Your task to perform on an android device: open app "Venmo" (install if not already installed) and go to login screen Image 0: 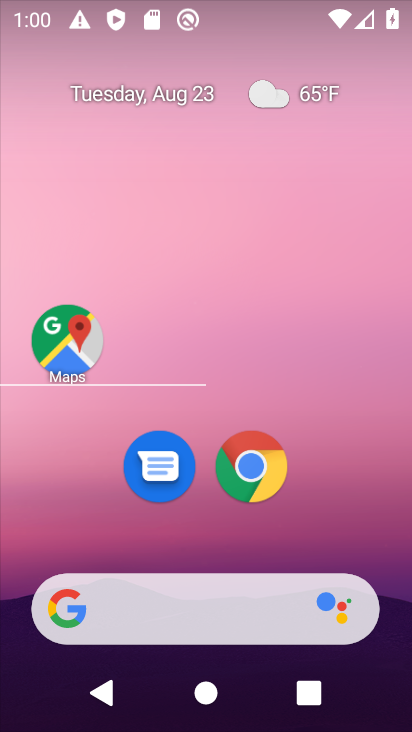
Step 0: click (46, 87)
Your task to perform on an android device: open app "Venmo" (install if not already installed) and go to login screen Image 1: 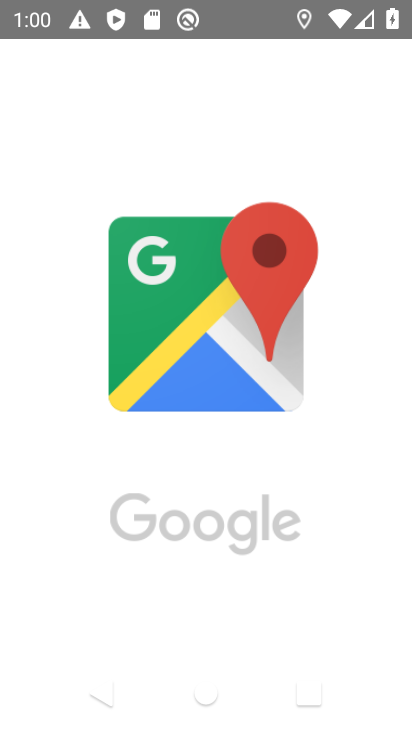
Step 1: click (34, 95)
Your task to perform on an android device: open app "Venmo" (install if not already installed) and go to login screen Image 2: 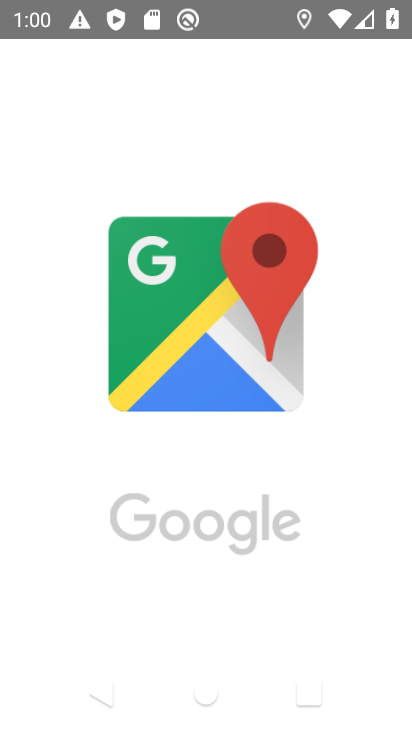
Step 2: press home button
Your task to perform on an android device: open app "Venmo" (install if not already installed) and go to login screen Image 3: 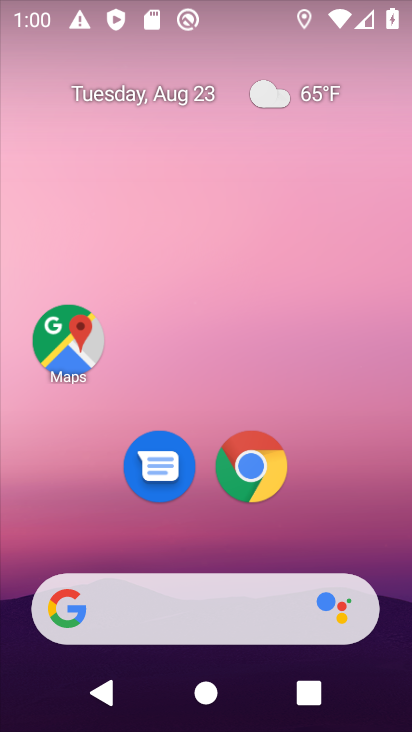
Step 3: drag from (265, 562) to (260, 77)
Your task to perform on an android device: open app "Venmo" (install if not already installed) and go to login screen Image 4: 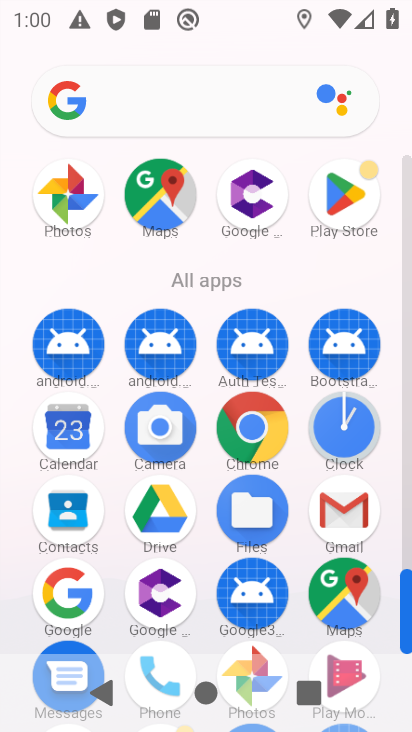
Step 4: click (335, 177)
Your task to perform on an android device: open app "Venmo" (install if not already installed) and go to login screen Image 5: 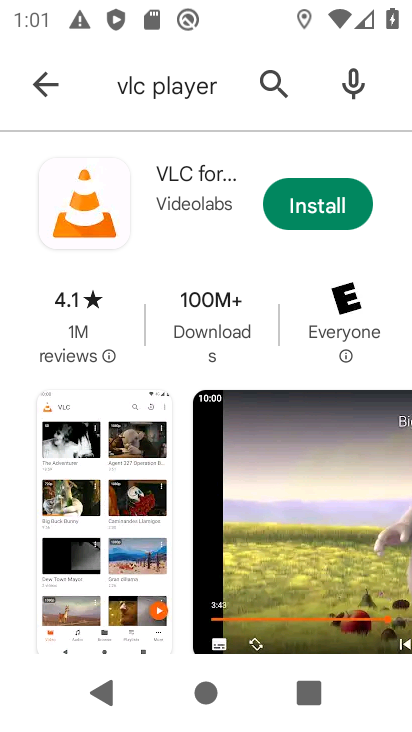
Step 5: click (31, 67)
Your task to perform on an android device: open app "Venmo" (install if not already installed) and go to login screen Image 6: 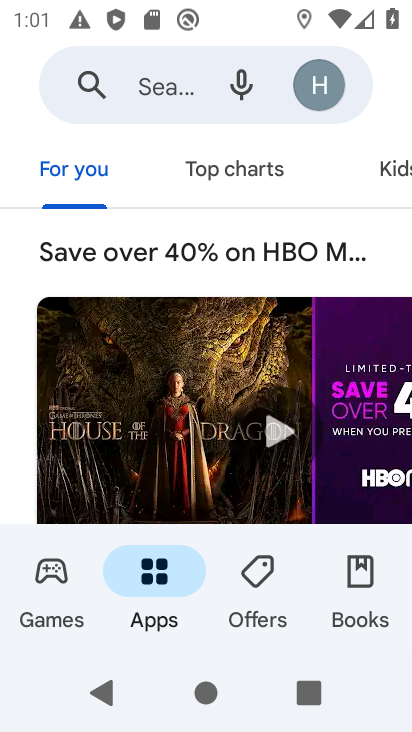
Step 6: click (166, 65)
Your task to perform on an android device: open app "Venmo" (install if not already installed) and go to login screen Image 7: 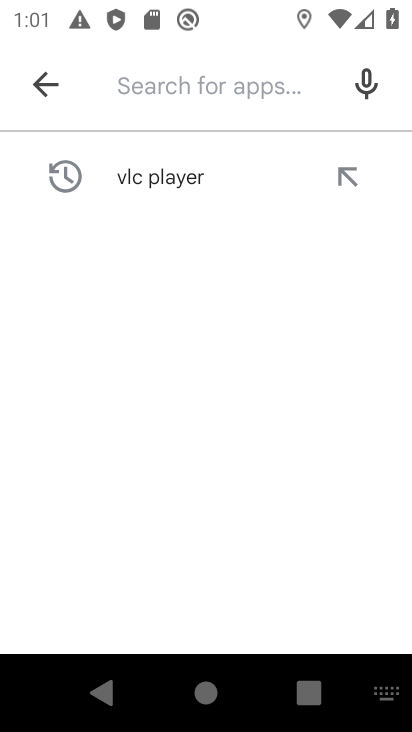
Step 7: click (145, 75)
Your task to perform on an android device: open app "Venmo" (install if not already installed) and go to login screen Image 8: 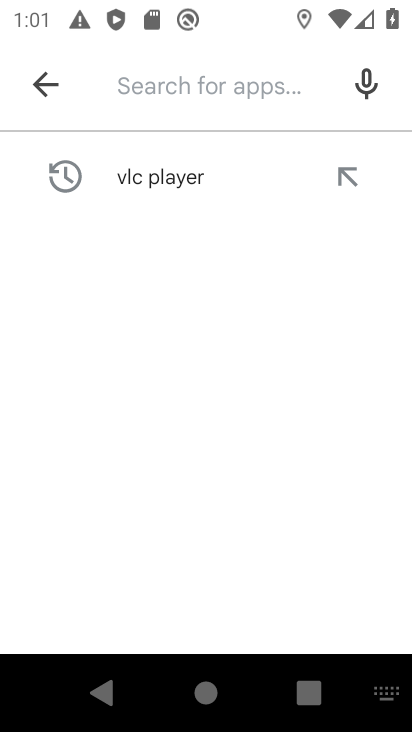
Step 8: type "Venmo "
Your task to perform on an android device: open app "Venmo" (install if not already installed) and go to login screen Image 9: 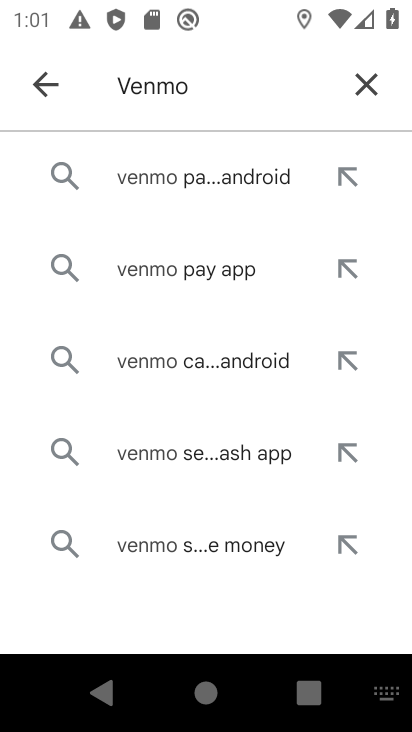
Step 9: click (227, 184)
Your task to perform on an android device: open app "Venmo" (install if not already installed) and go to login screen Image 10: 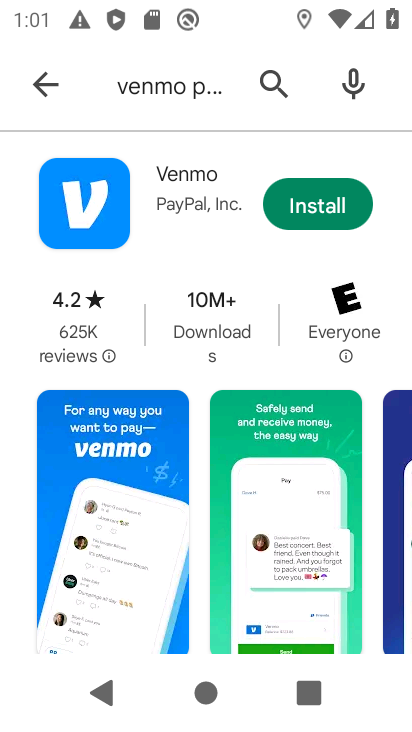
Step 10: click (280, 205)
Your task to perform on an android device: open app "Venmo" (install if not already installed) and go to login screen Image 11: 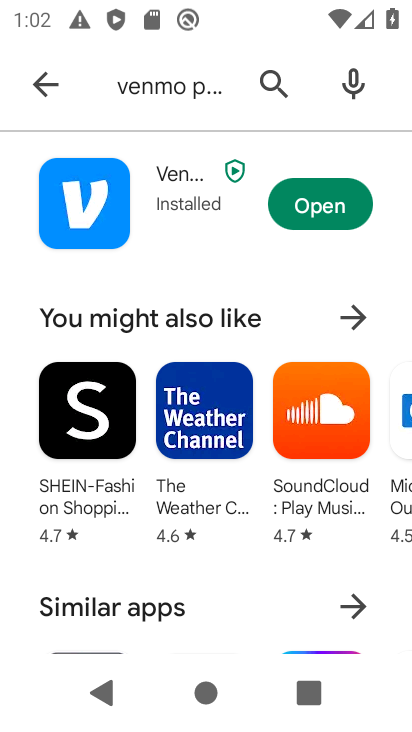
Step 11: click (351, 196)
Your task to perform on an android device: open app "Venmo" (install if not already installed) and go to login screen Image 12: 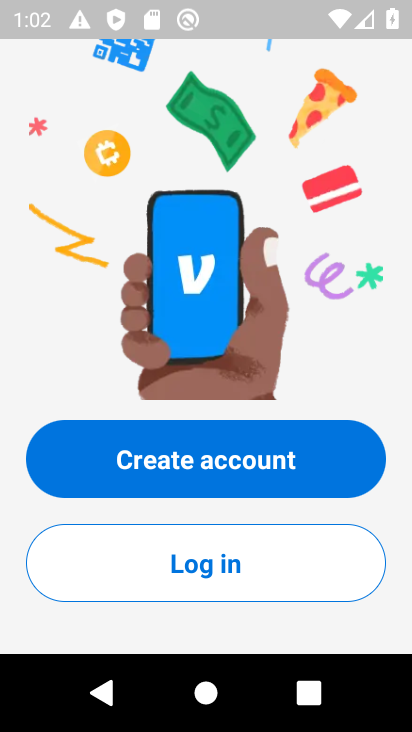
Step 12: task complete